Your task to perform on an android device: Go to Yahoo.com Image 0: 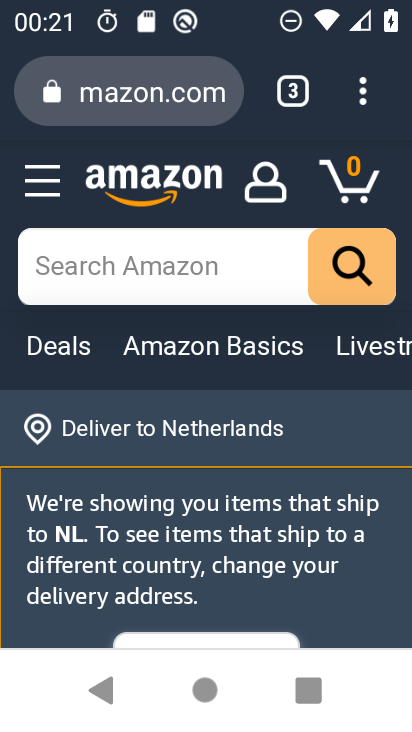
Step 0: click (137, 98)
Your task to perform on an android device: Go to Yahoo.com Image 1: 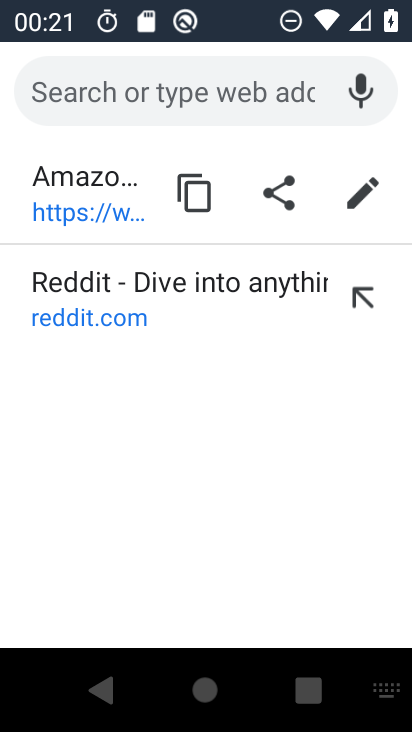
Step 1: type "yahoo.com"
Your task to perform on an android device: Go to Yahoo.com Image 2: 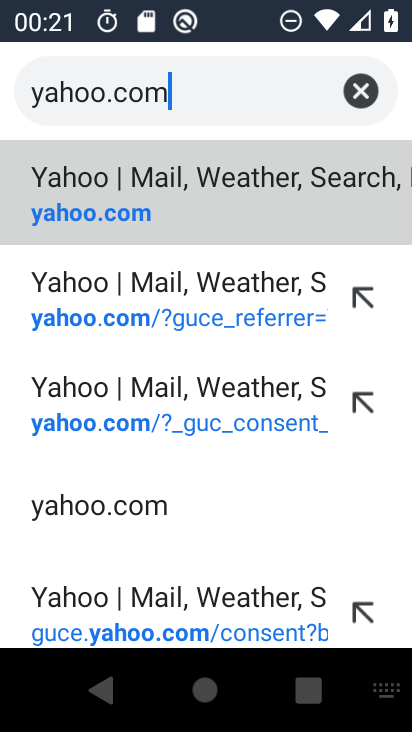
Step 2: click (86, 184)
Your task to perform on an android device: Go to Yahoo.com Image 3: 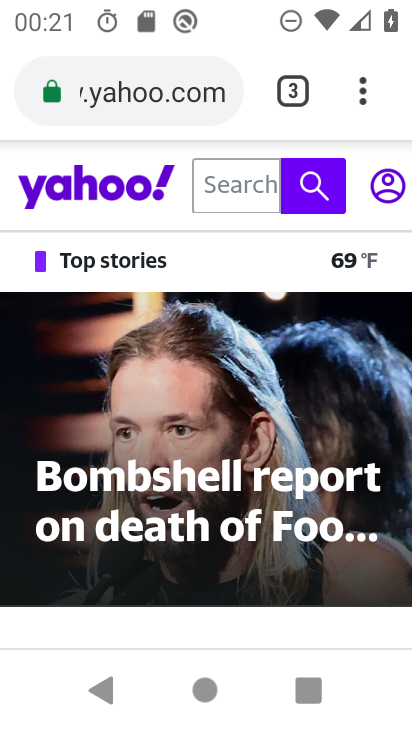
Step 3: task complete